Your task to perform on an android device: toggle pop-ups in chrome Image 0: 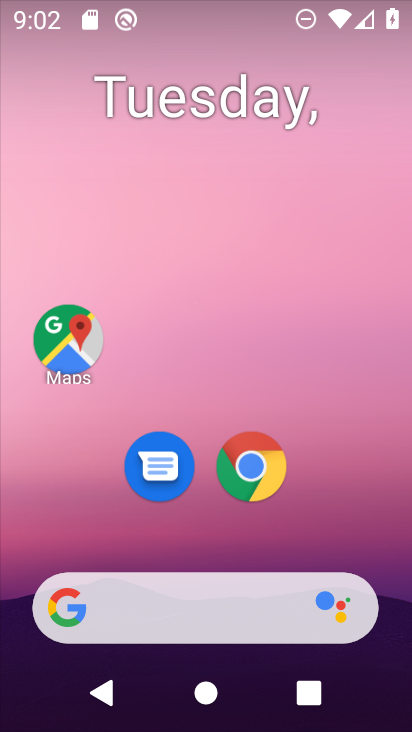
Step 0: click (258, 469)
Your task to perform on an android device: toggle pop-ups in chrome Image 1: 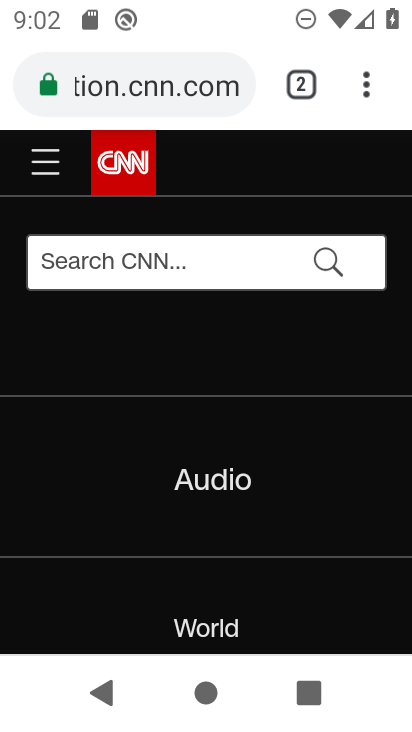
Step 1: click (371, 81)
Your task to perform on an android device: toggle pop-ups in chrome Image 2: 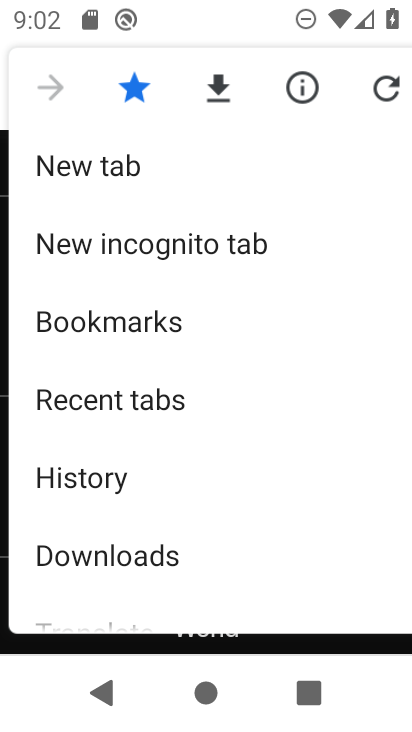
Step 2: drag from (149, 533) to (231, 197)
Your task to perform on an android device: toggle pop-ups in chrome Image 3: 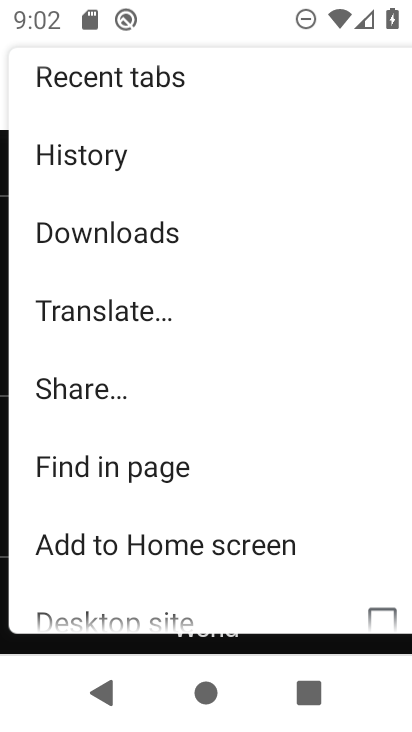
Step 3: drag from (170, 532) to (213, 187)
Your task to perform on an android device: toggle pop-ups in chrome Image 4: 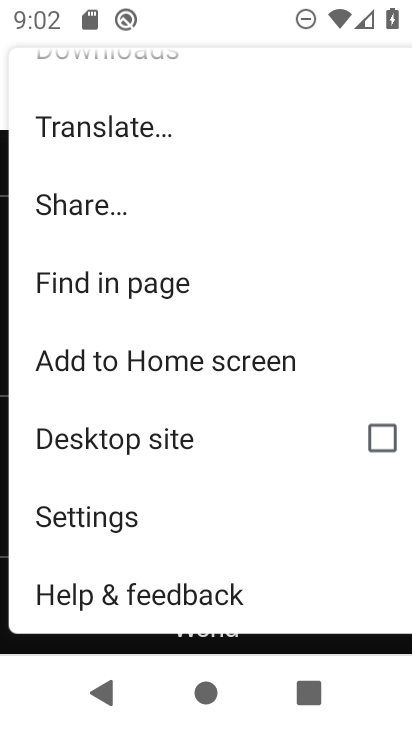
Step 4: click (124, 522)
Your task to perform on an android device: toggle pop-ups in chrome Image 5: 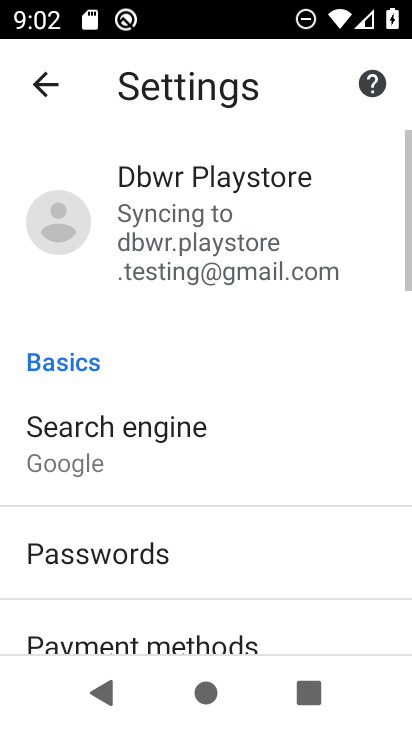
Step 5: drag from (169, 541) to (212, 227)
Your task to perform on an android device: toggle pop-ups in chrome Image 6: 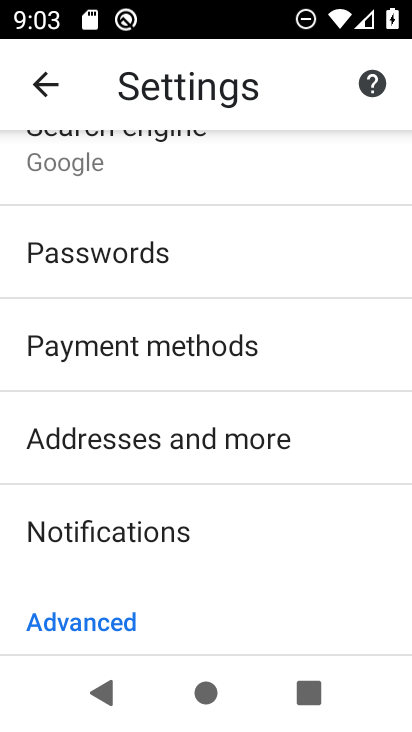
Step 6: drag from (190, 553) to (235, 169)
Your task to perform on an android device: toggle pop-ups in chrome Image 7: 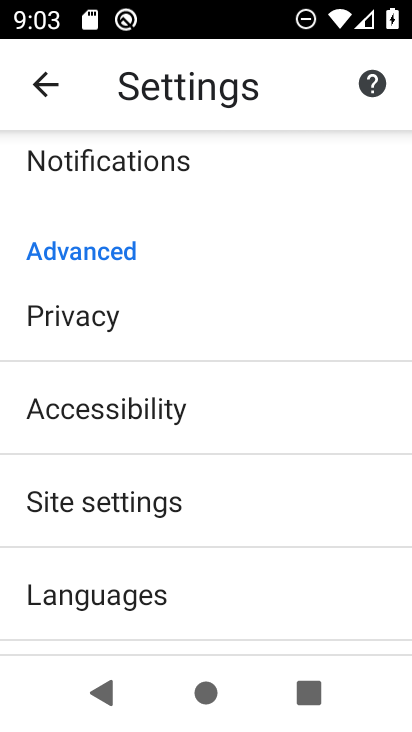
Step 7: click (154, 505)
Your task to perform on an android device: toggle pop-ups in chrome Image 8: 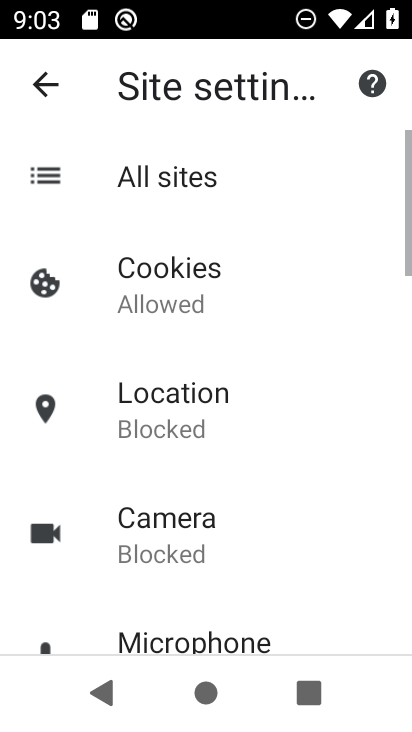
Step 8: drag from (144, 548) to (207, 120)
Your task to perform on an android device: toggle pop-ups in chrome Image 9: 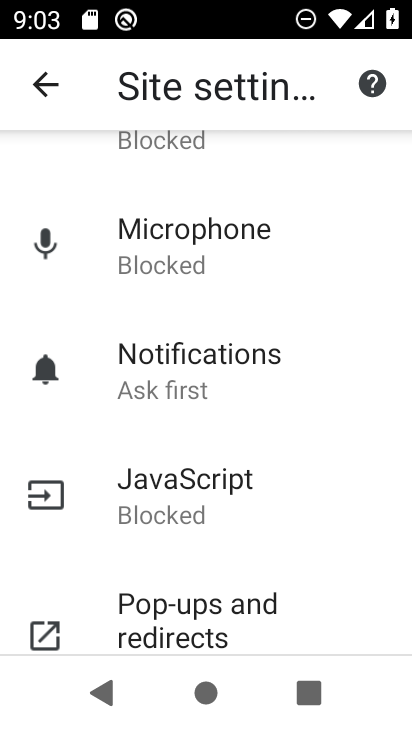
Step 9: click (194, 620)
Your task to perform on an android device: toggle pop-ups in chrome Image 10: 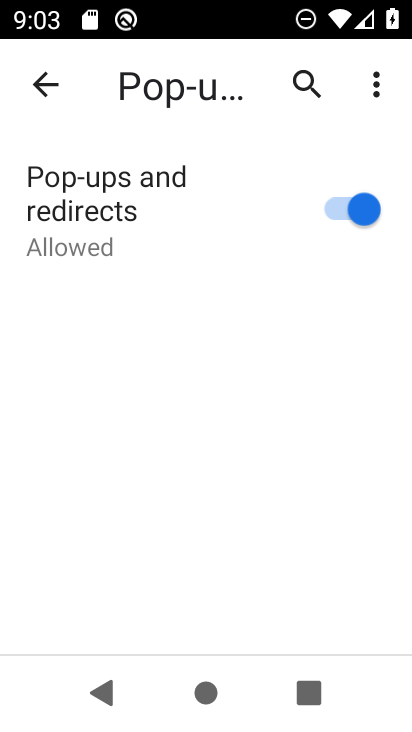
Step 10: click (319, 223)
Your task to perform on an android device: toggle pop-ups in chrome Image 11: 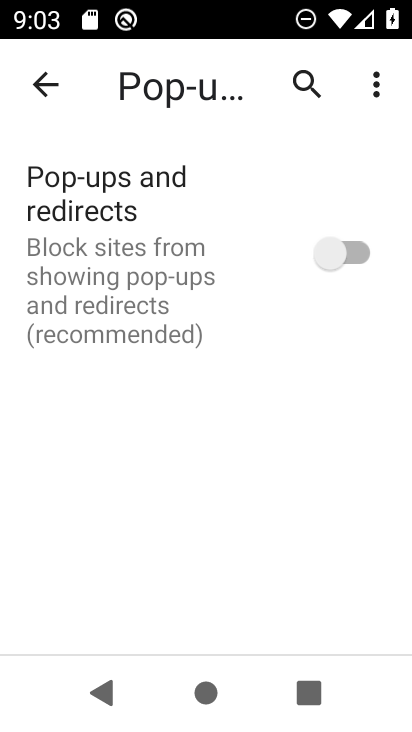
Step 11: task complete